Your task to perform on an android device: turn off data saver in the chrome app Image 0: 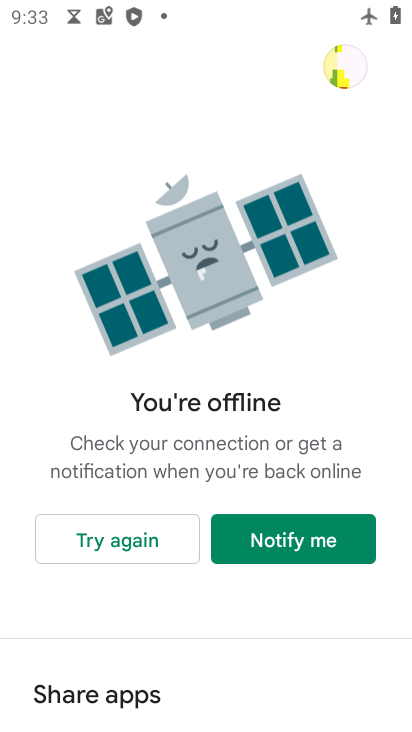
Step 0: press home button
Your task to perform on an android device: turn off data saver in the chrome app Image 1: 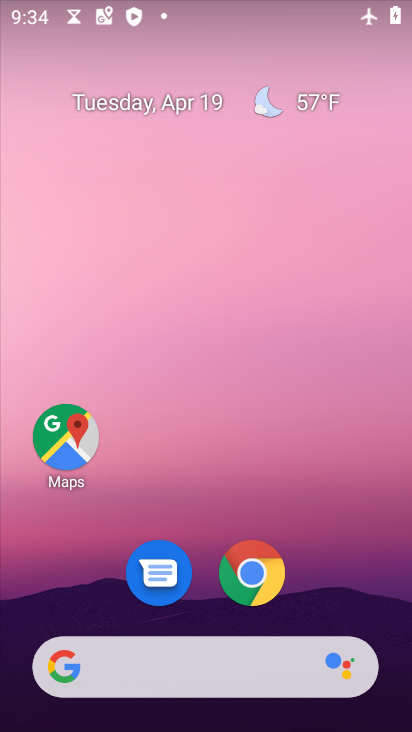
Step 1: click (265, 582)
Your task to perform on an android device: turn off data saver in the chrome app Image 2: 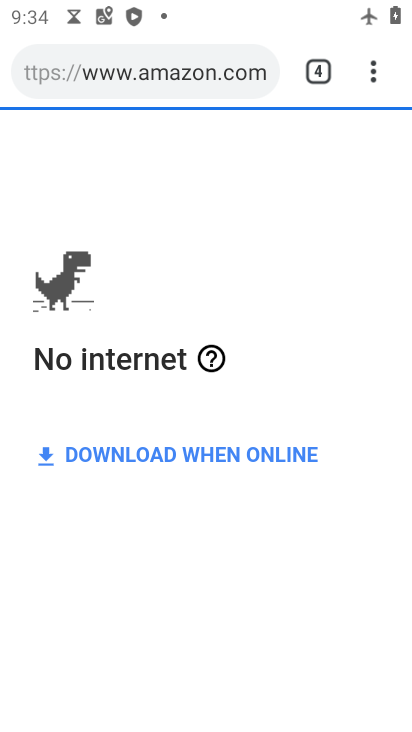
Step 2: click (375, 68)
Your task to perform on an android device: turn off data saver in the chrome app Image 3: 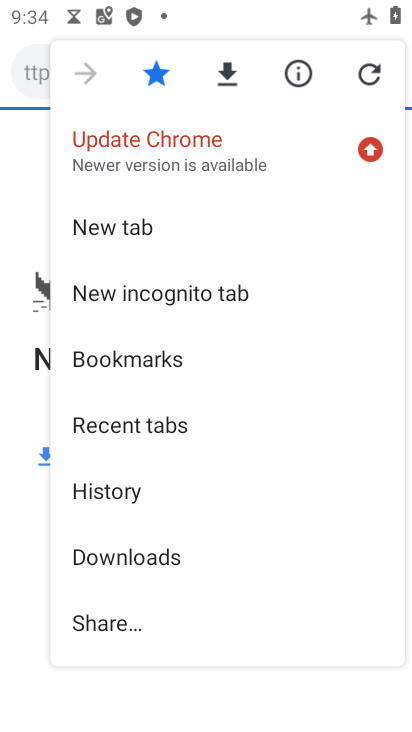
Step 3: drag from (229, 579) to (197, 274)
Your task to perform on an android device: turn off data saver in the chrome app Image 4: 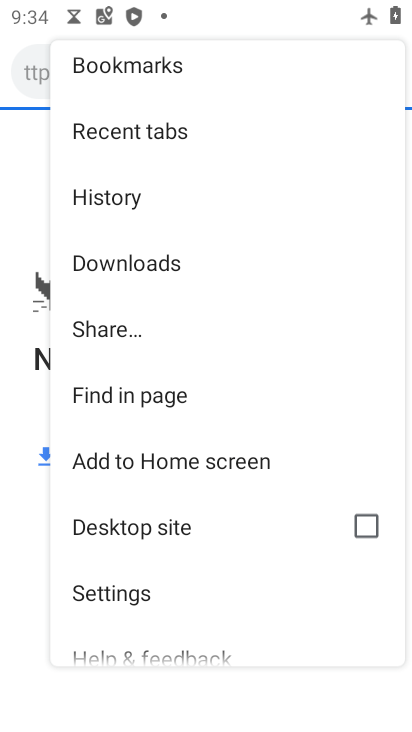
Step 4: click (121, 590)
Your task to perform on an android device: turn off data saver in the chrome app Image 5: 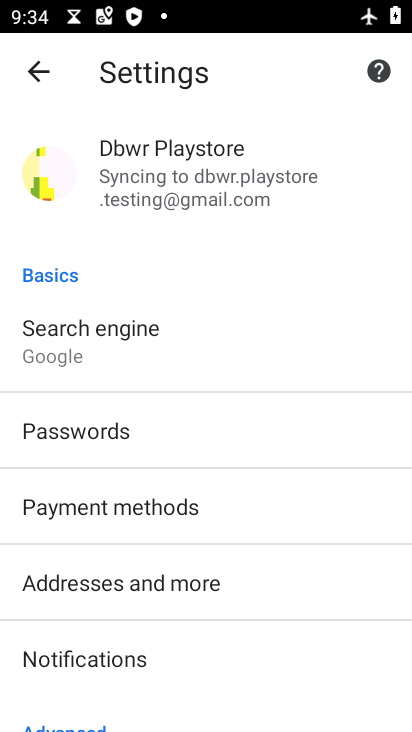
Step 5: drag from (302, 636) to (310, 125)
Your task to perform on an android device: turn off data saver in the chrome app Image 6: 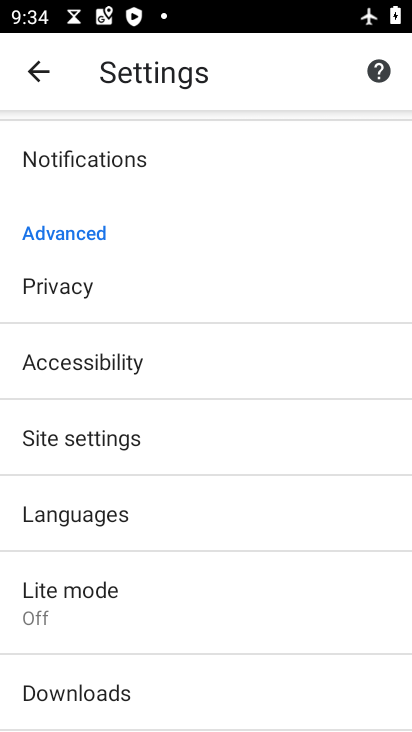
Step 6: click (119, 591)
Your task to perform on an android device: turn off data saver in the chrome app Image 7: 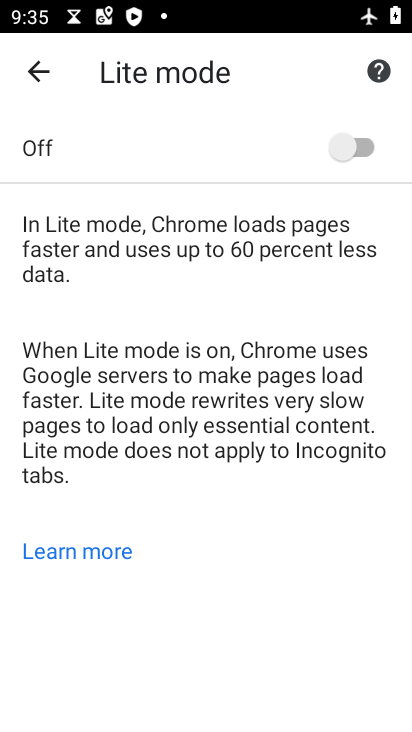
Step 7: task complete